Your task to perform on an android device: toggle translation in the chrome app Image 0: 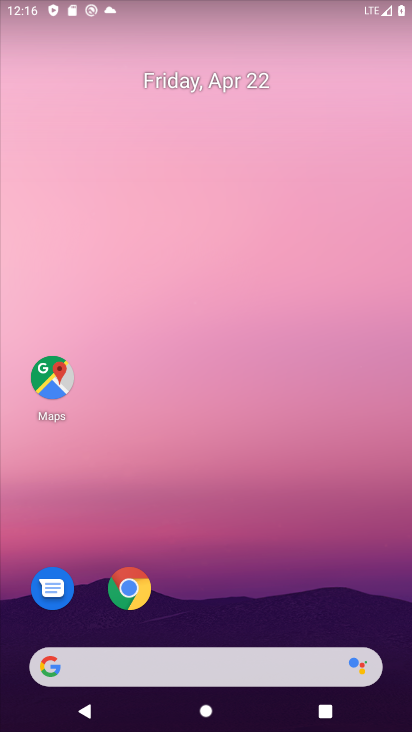
Step 0: drag from (288, 708) to (274, 252)
Your task to perform on an android device: toggle translation in the chrome app Image 1: 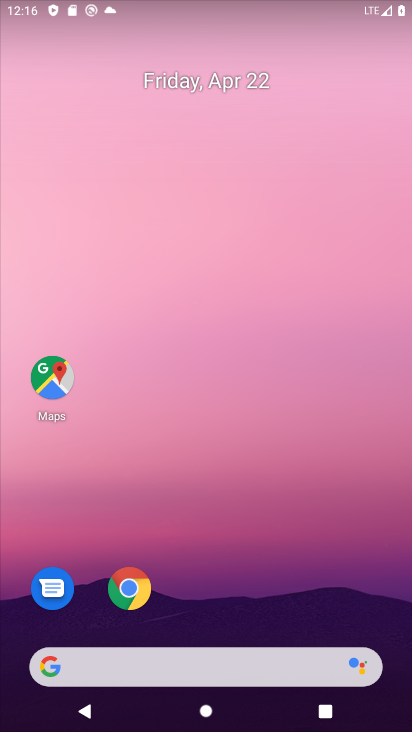
Step 1: drag from (231, 680) to (220, 171)
Your task to perform on an android device: toggle translation in the chrome app Image 2: 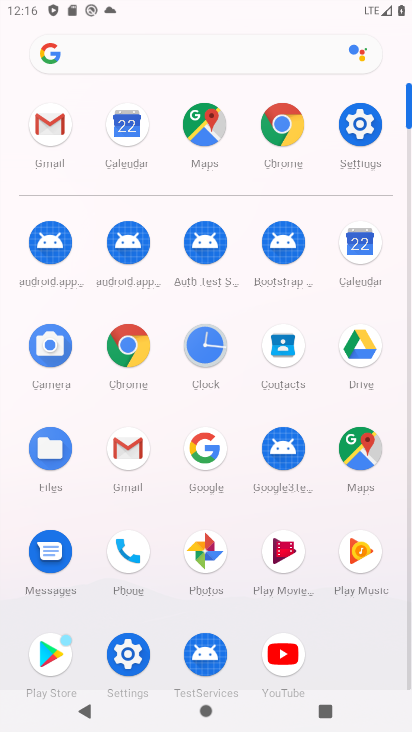
Step 2: click (135, 335)
Your task to perform on an android device: toggle translation in the chrome app Image 3: 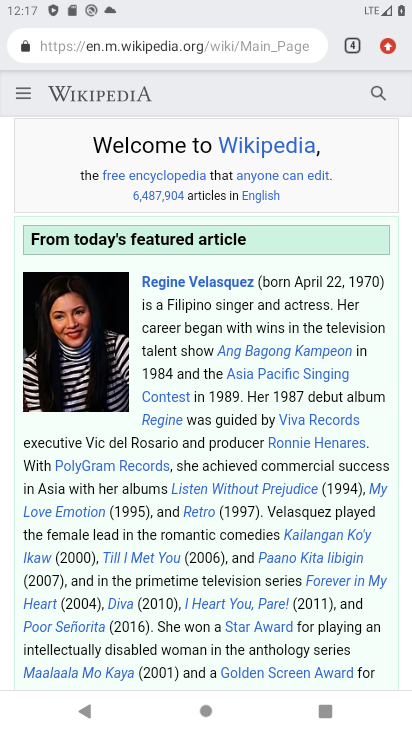
Step 3: click (386, 51)
Your task to perform on an android device: toggle translation in the chrome app Image 4: 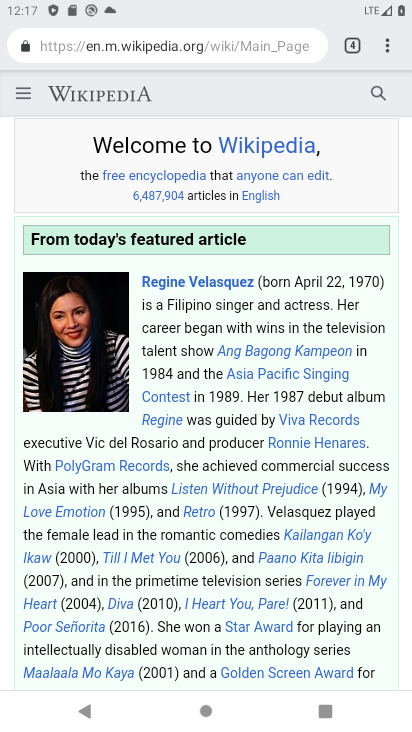
Step 4: click (383, 54)
Your task to perform on an android device: toggle translation in the chrome app Image 5: 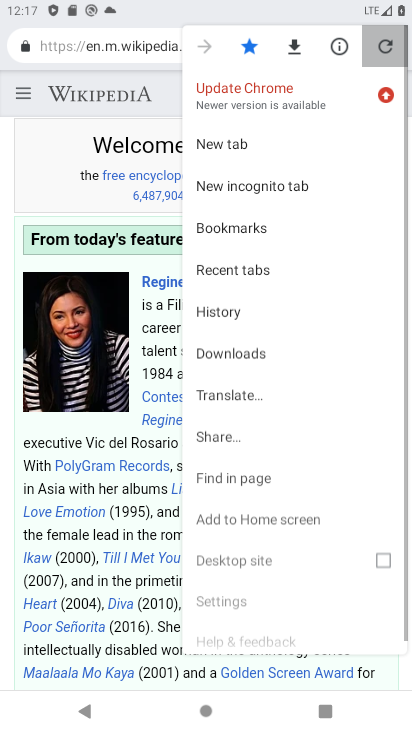
Step 5: click (390, 49)
Your task to perform on an android device: toggle translation in the chrome app Image 6: 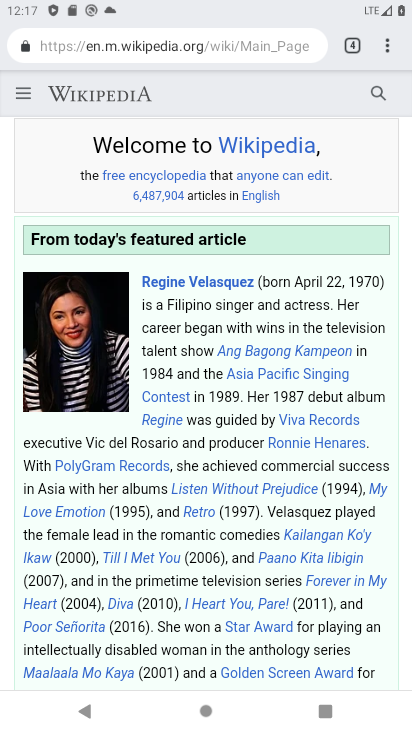
Step 6: click (384, 49)
Your task to perform on an android device: toggle translation in the chrome app Image 7: 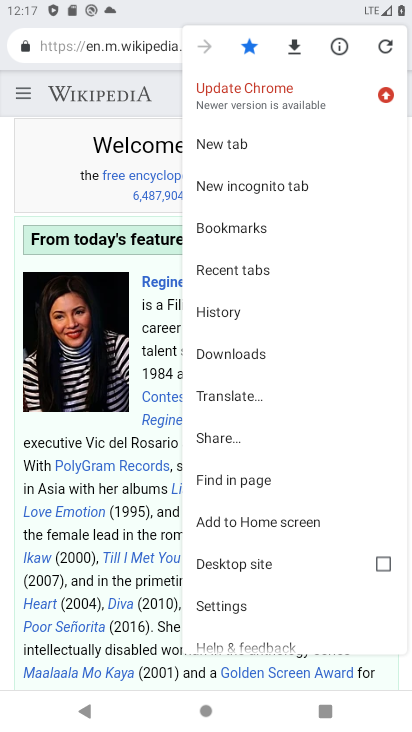
Step 7: click (236, 607)
Your task to perform on an android device: toggle translation in the chrome app Image 8: 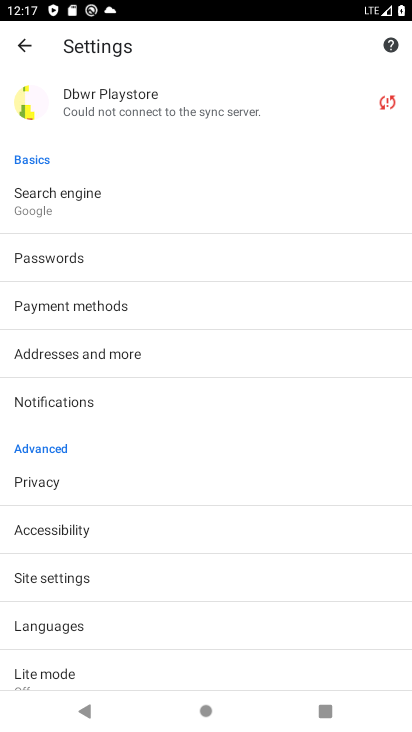
Step 8: click (75, 627)
Your task to perform on an android device: toggle translation in the chrome app Image 9: 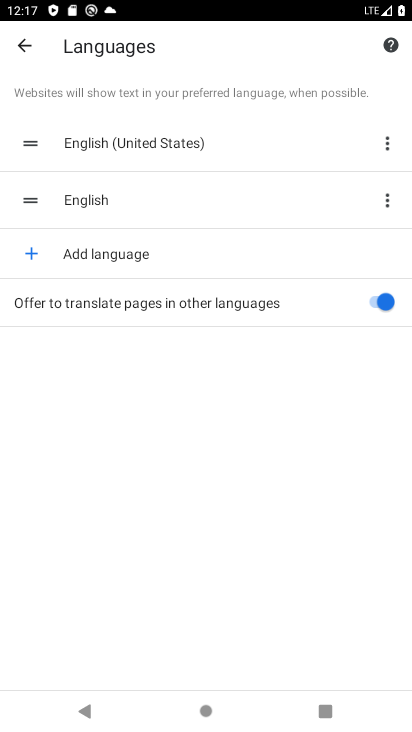
Step 9: task complete